Your task to perform on an android device: Clear all items from cart on walmart.com. Add usb-c to the cart on walmart.com, then select checkout. Image 0: 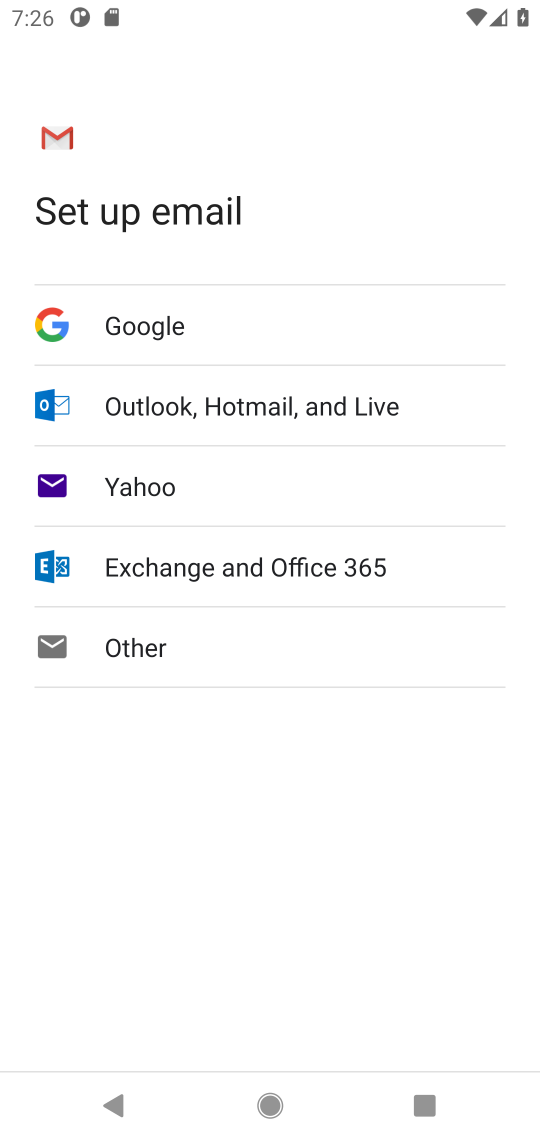
Step 0: press home button
Your task to perform on an android device: Clear all items from cart on walmart.com. Add usb-c to the cart on walmart.com, then select checkout. Image 1: 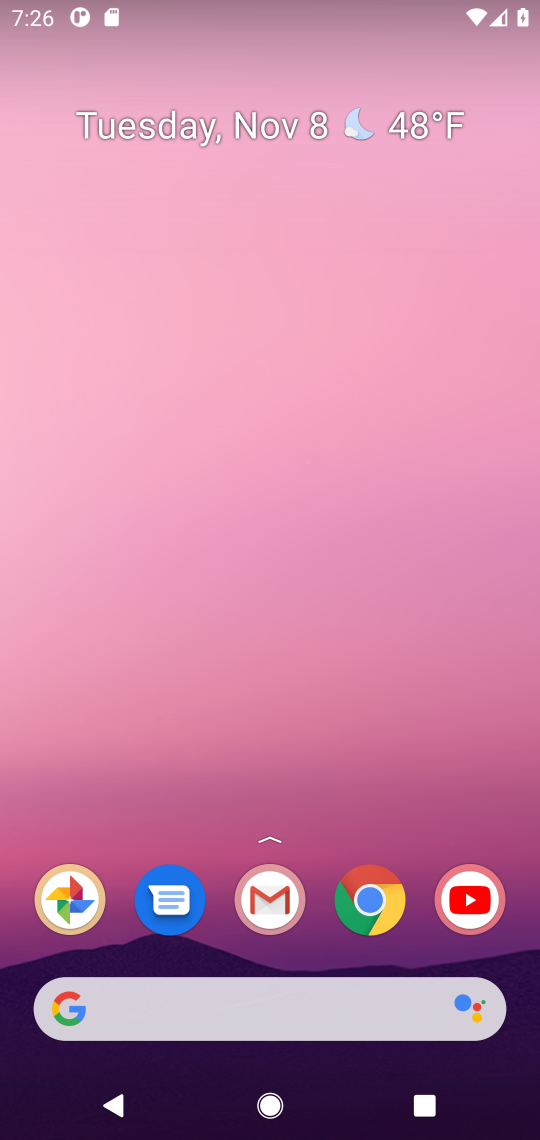
Step 1: drag from (247, 982) to (349, 218)
Your task to perform on an android device: Clear all items from cart on walmart.com. Add usb-c to the cart on walmart.com, then select checkout. Image 2: 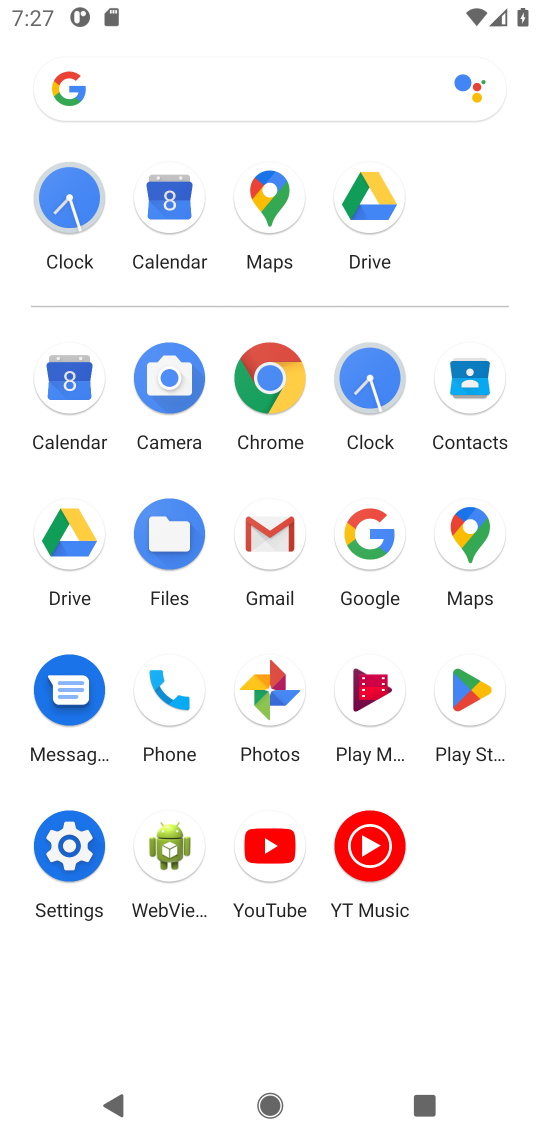
Step 2: click (350, 532)
Your task to perform on an android device: Clear all items from cart on walmart.com. Add usb-c to the cart on walmart.com, then select checkout. Image 3: 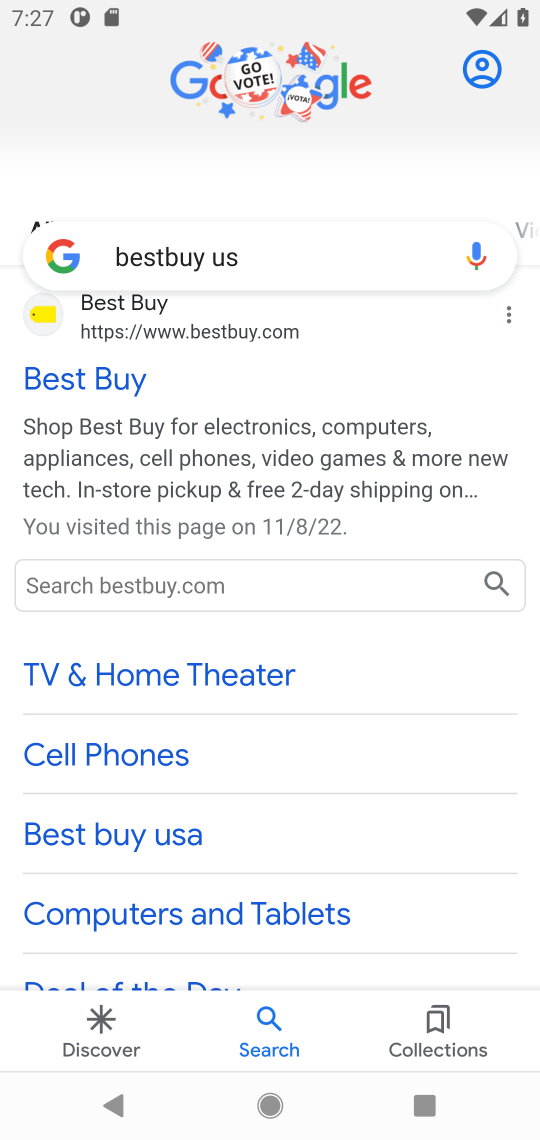
Step 3: click (222, 254)
Your task to perform on an android device: Clear all items from cart on walmart.com. Add usb-c to the cart on walmart.com, then select checkout. Image 4: 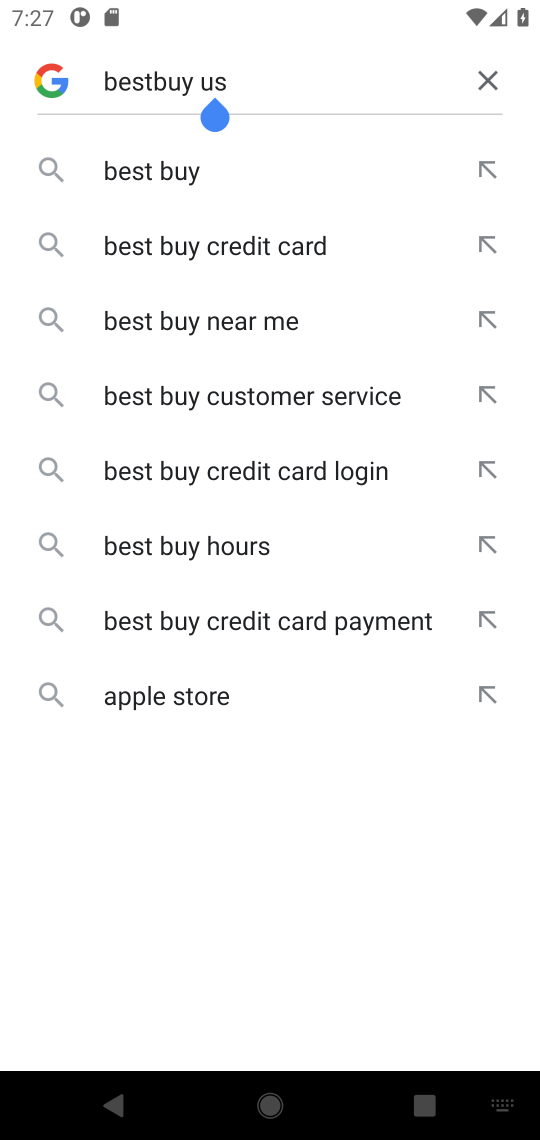
Step 4: click (480, 67)
Your task to perform on an android device: Clear all items from cart on walmart.com. Add usb-c to the cart on walmart.com, then select checkout. Image 5: 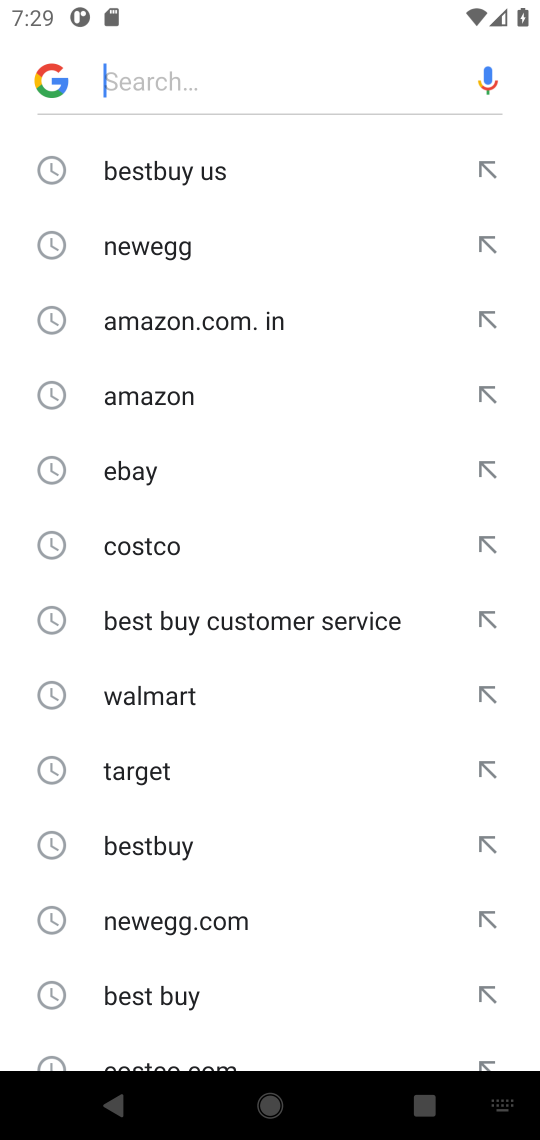
Step 5: drag from (235, 48) to (319, 55)
Your task to perform on an android device: Clear all items from cart on walmart.com. Add usb-c to the cart on walmart.com, then select checkout. Image 6: 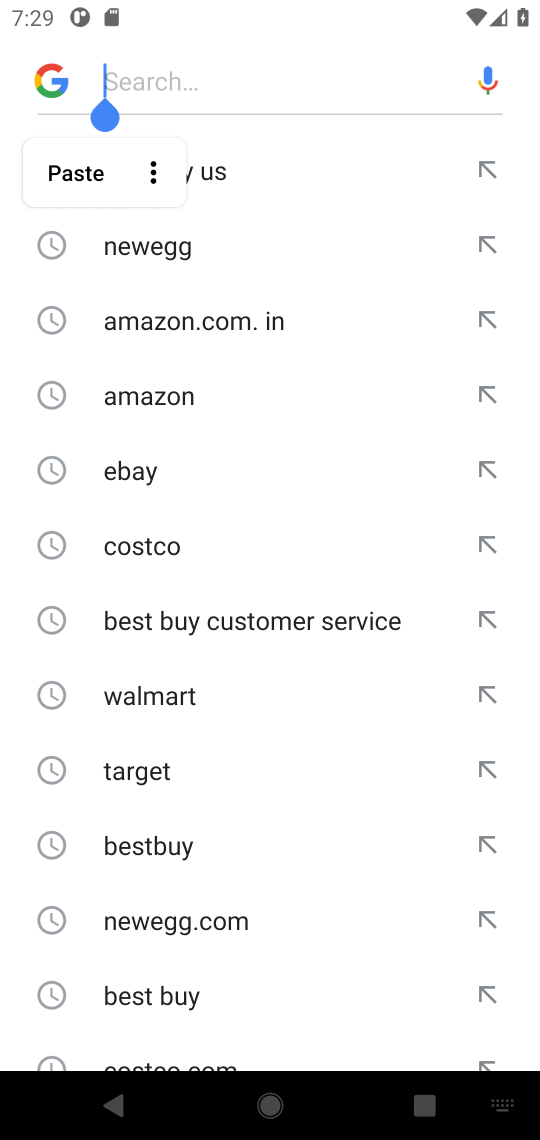
Step 6: type "walmart "
Your task to perform on an android device: Clear all items from cart on walmart.com. Add usb-c to the cart on walmart.com, then select checkout. Image 7: 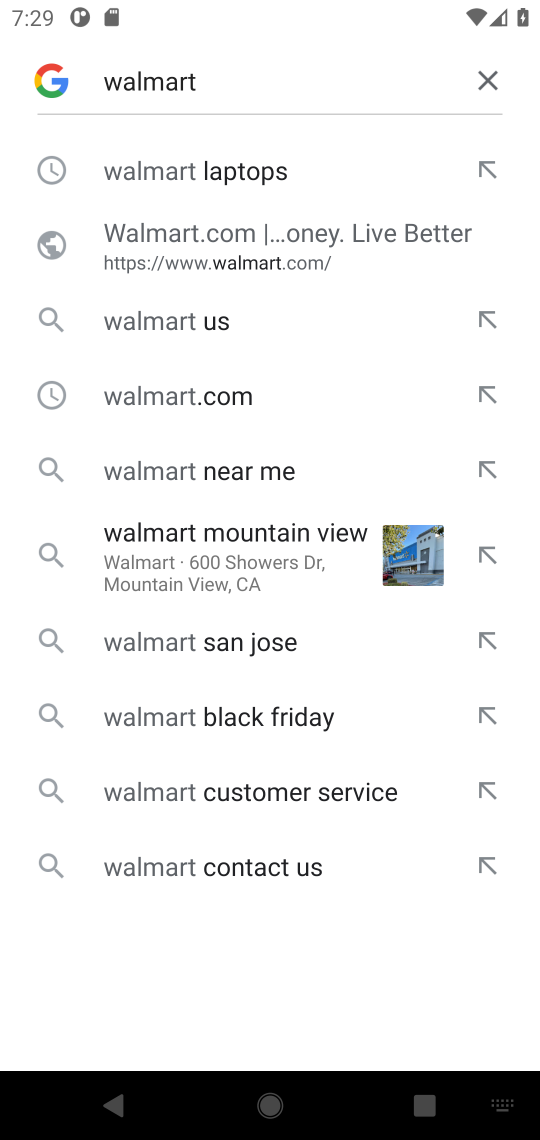
Step 7: click (206, 259)
Your task to perform on an android device: Clear all items from cart on walmart.com. Add usb-c to the cart on walmart.com, then select checkout. Image 8: 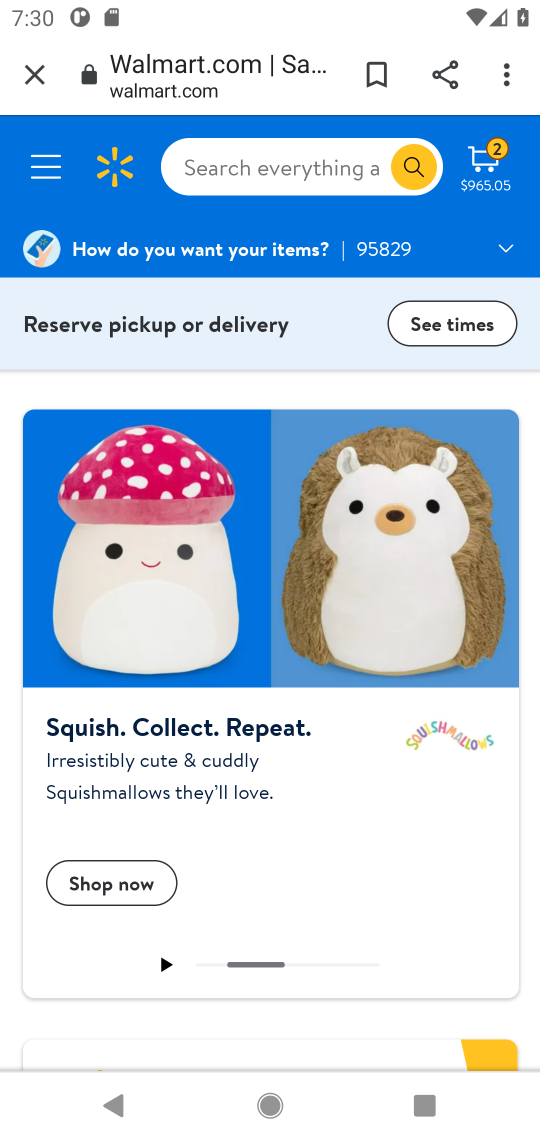
Step 8: click (297, 144)
Your task to perform on an android device: Clear all items from cart on walmart.com. Add usb-c to the cart on walmart.com, then select checkout. Image 9: 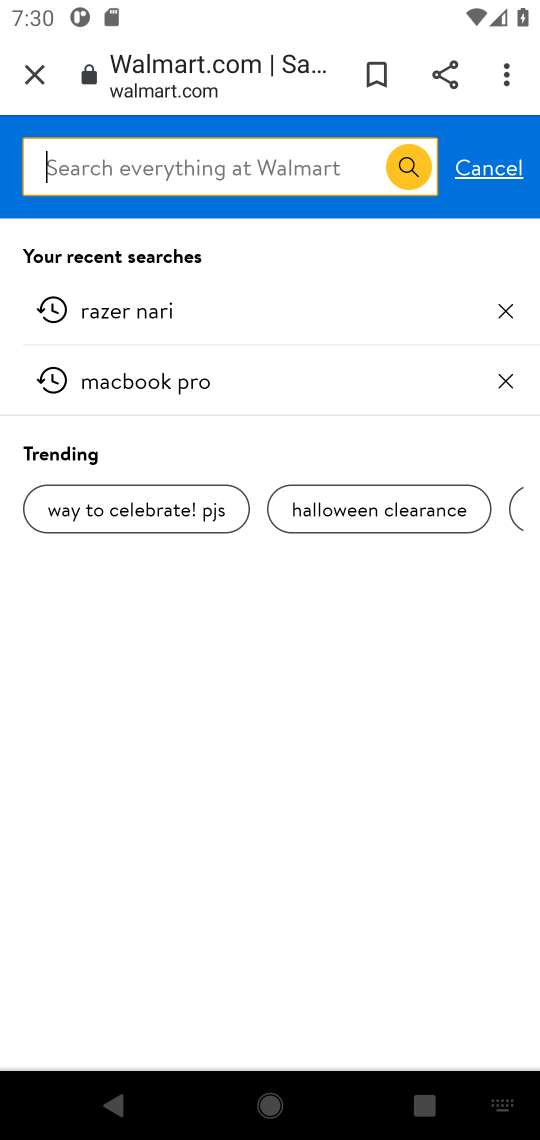
Step 9: type "usb "
Your task to perform on an android device: Clear all items from cart on walmart.com. Add usb-c to the cart on walmart.com, then select checkout. Image 10: 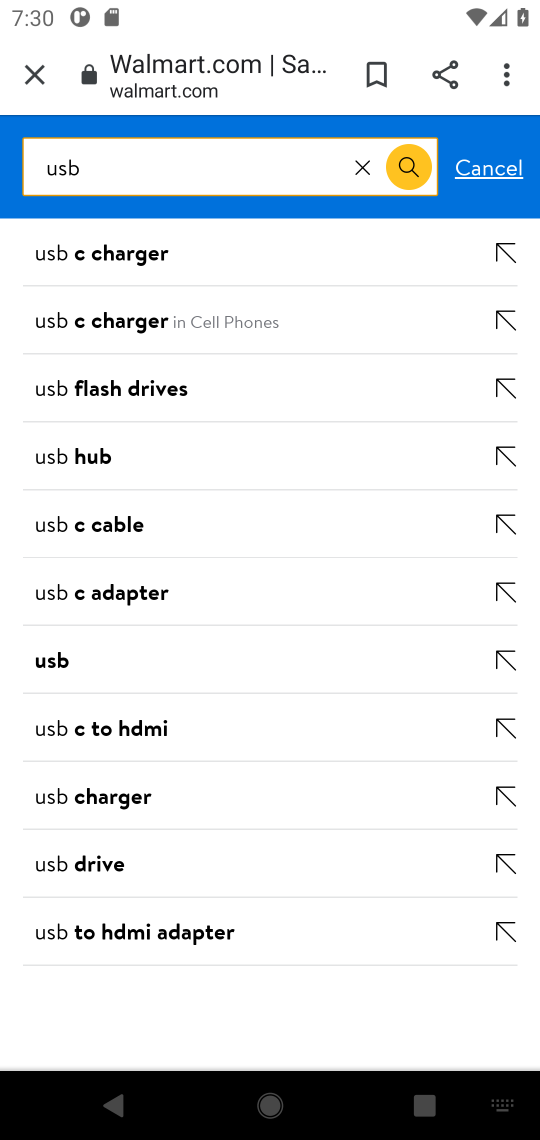
Step 10: click (145, 506)
Your task to perform on an android device: Clear all items from cart on walmart.com. Add usb-c to the cart on walmart.com, then select checkout. Image 11: 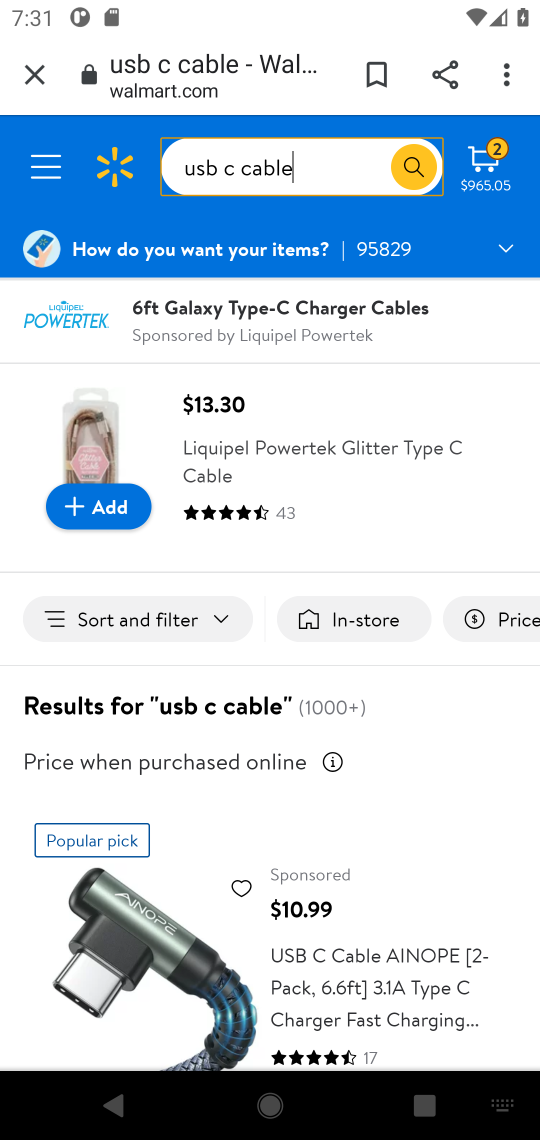
Step 11: drag from (391, 947) to (438, 494)
Your task to perform on an android device: Clear all items from cart on walmart.com. Add usb-c to the cart on walmart.com, then select checkout. Image 12: 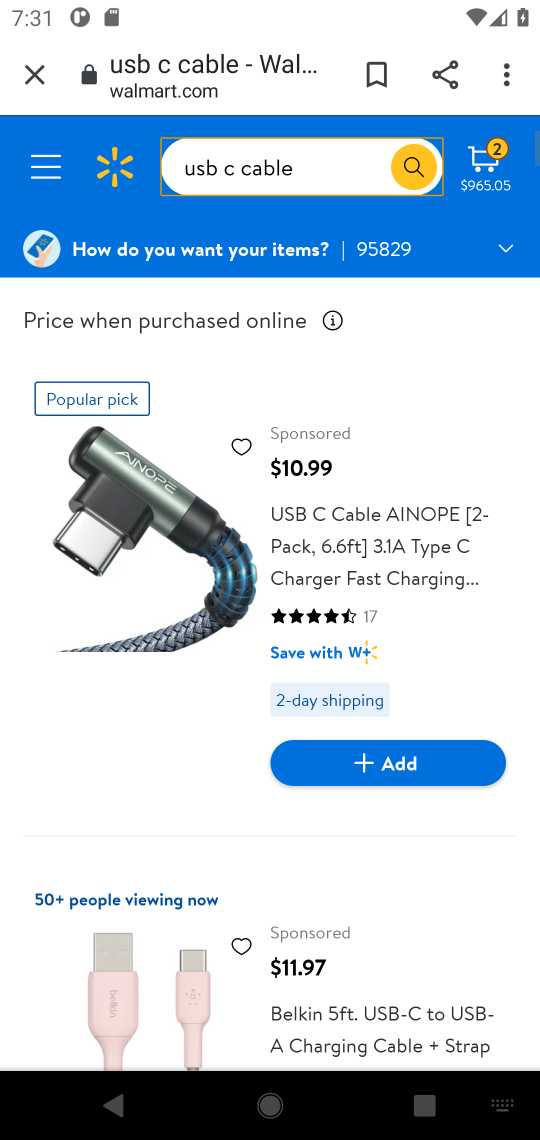
Step 12: drag from (370, 739) to (389, 258)
Your task to perform on an android device: Clear all items from cart on walmart.com. Add usb-c to the cart on walmart.com, then select checkout. Image 13: 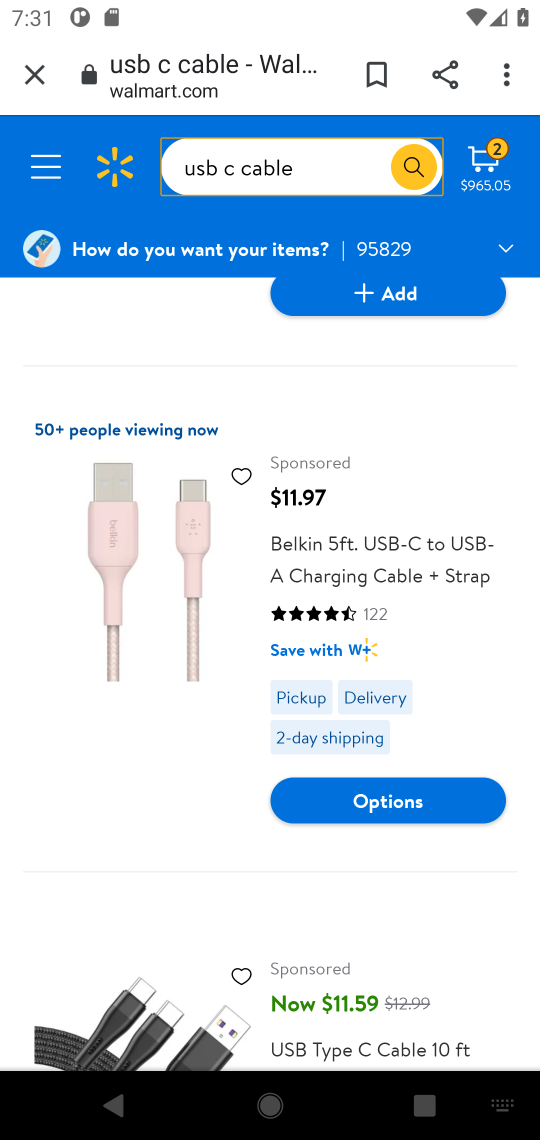
Step 13: drag from (384, 364) to (432, 1013)
Your task to perform on an android device: Clear all items from cart on walmart.com. Add usb-c to the cart on walmart.com, then select checkout. Image 14: 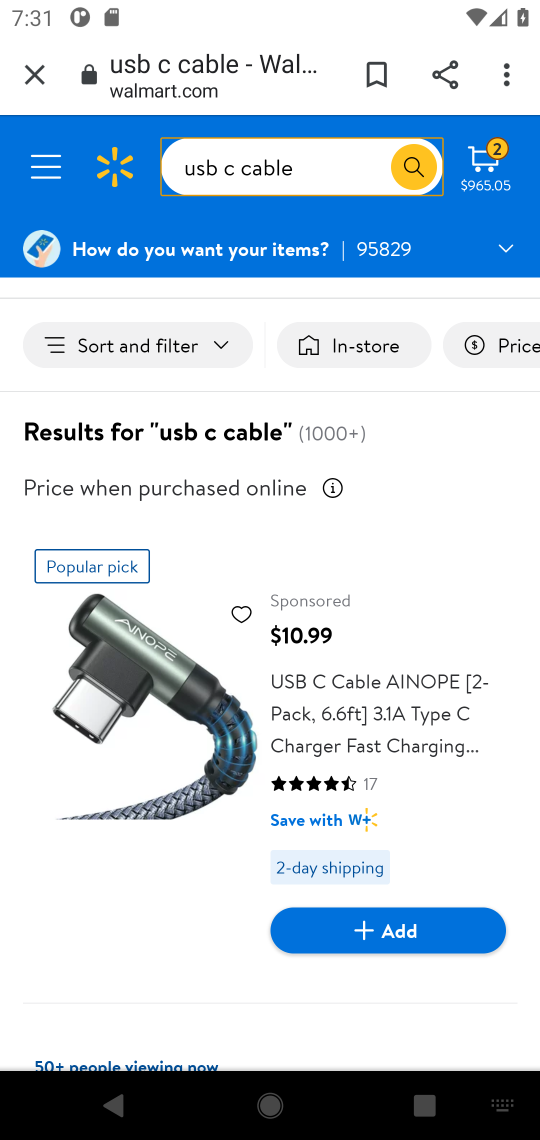
Step 14: click (366, 932)
Your task to perform on an android device: Clear all items from cart on walmart.com. Add usb-c to the cart on walmart.com, then select checkout. Image 15: 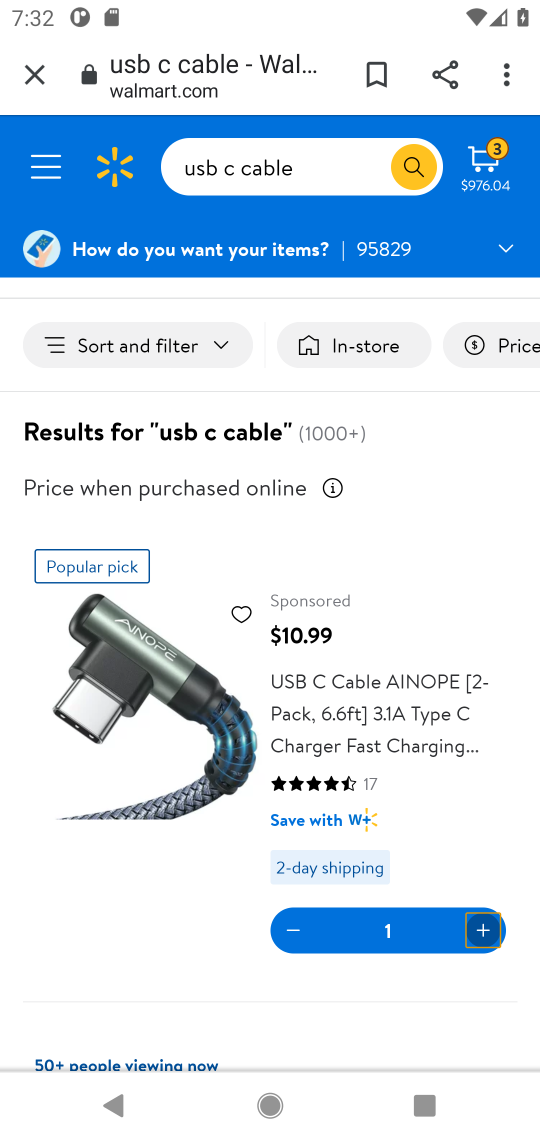
Step 15: task complete